Your task to perform on an android device: Open Google Image 0: 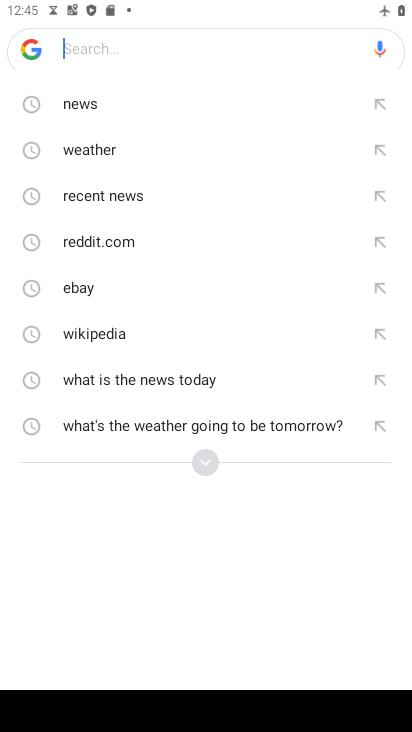
Step 0: press home button
Your task to perform on an android device: Open Google Image 1: 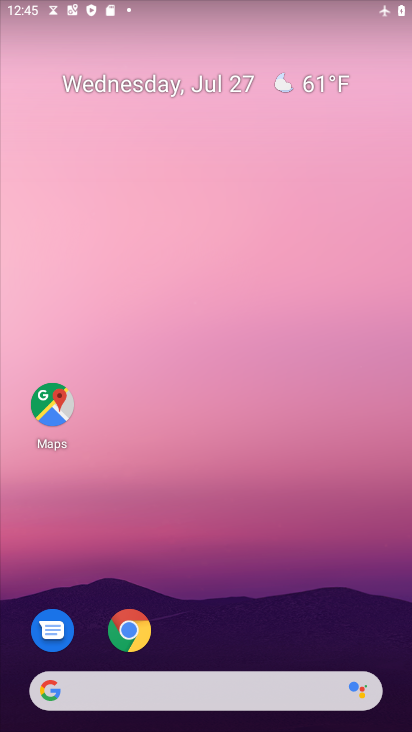
Step 1: drag from (148, 675) to (181, 220)
Your task to perform on an android device: Open Google Image 2: 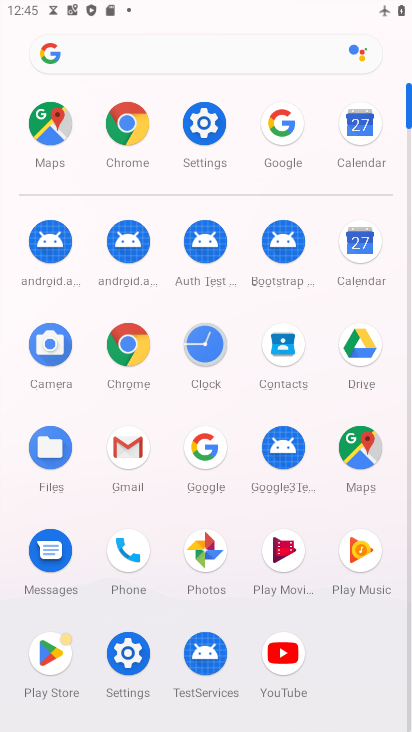
Step 2: click (210, 462)
Your task to perform on an android device: Open Google Image 3: 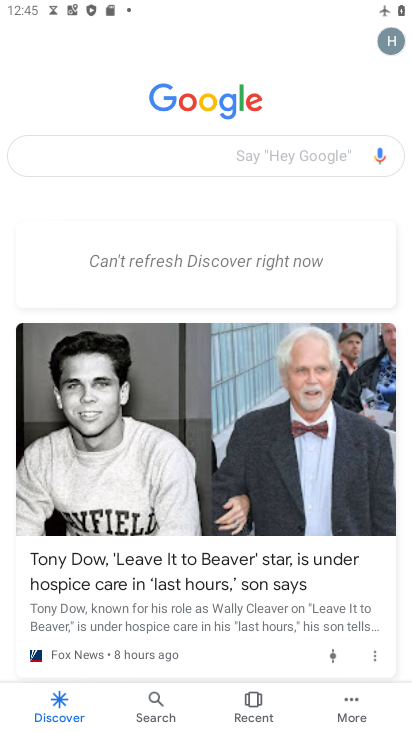
Step 3: task complete